Your task to perform on an android device: Open Chrome and go to settings Image 0: 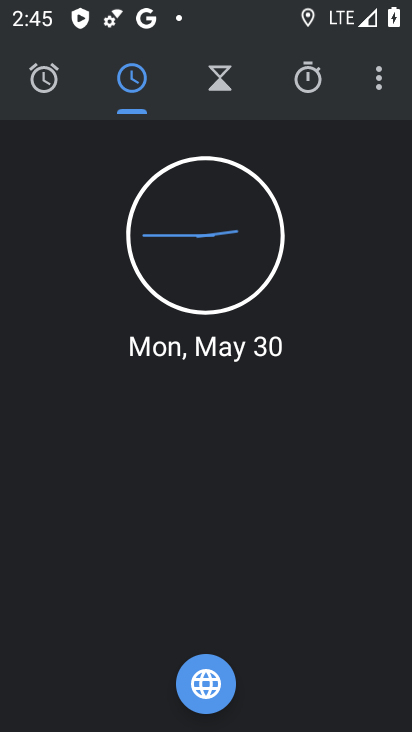
Step 0: press home button
Your task to perform on an android device: Open Chrome and go to settings Image 1: 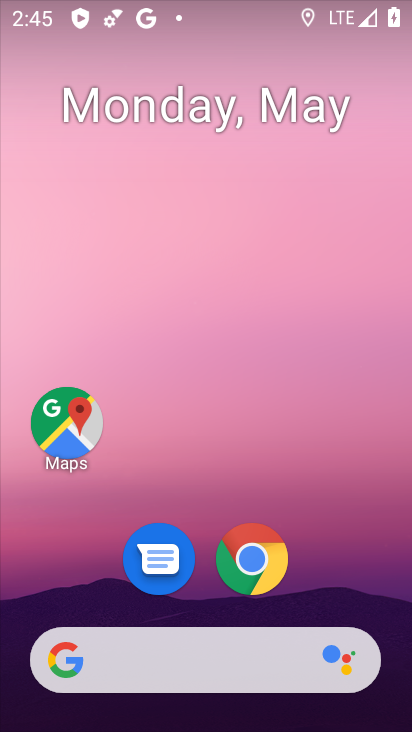
Step 1: click (256, 567)
Your task to perform on an android device: Open Chrome and go to settings Image 2: 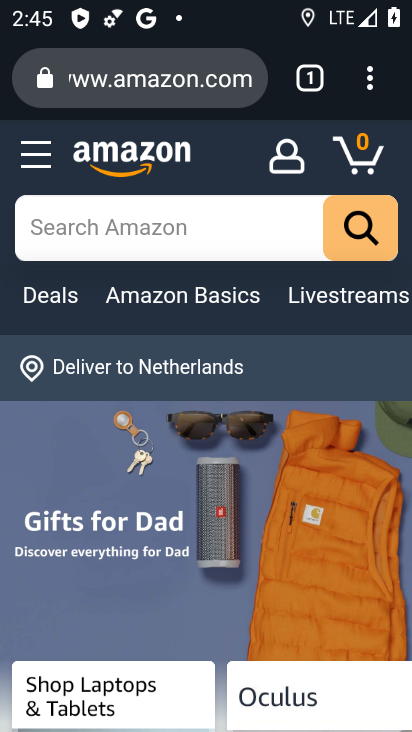
Step 2: click (374, 74)
Your task to perform on an android device: Open Chrome and go to settings Image 3: 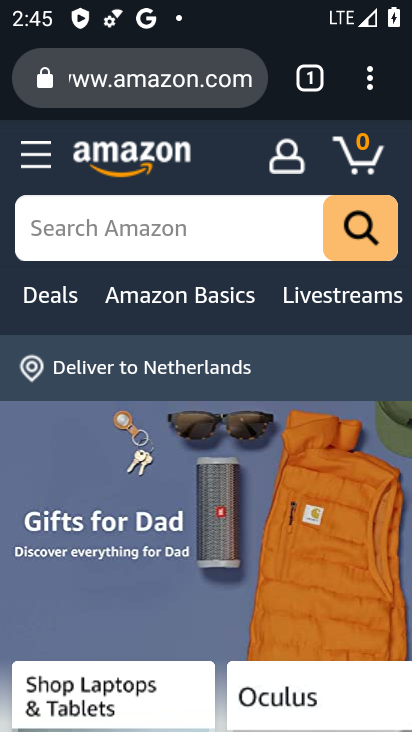
Step 3: click (371, 75)
Your task to perform on an android device: Open Chrome and go to settings Image 4: 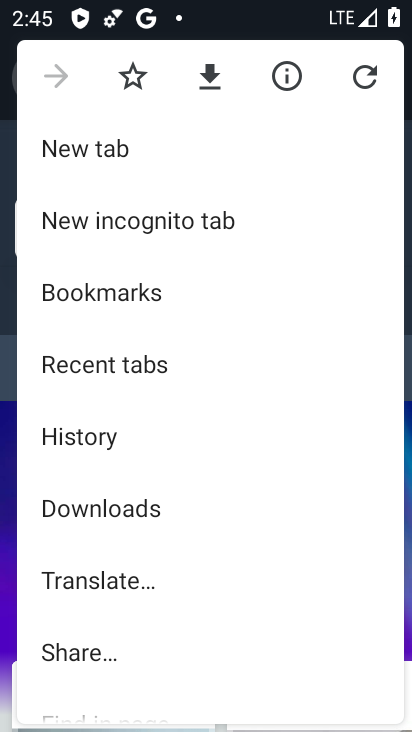
Step 4: drag from (146, 634) to (130, 325)
Your task to perform on an android device: Open Chrome and go to settings Image 5: 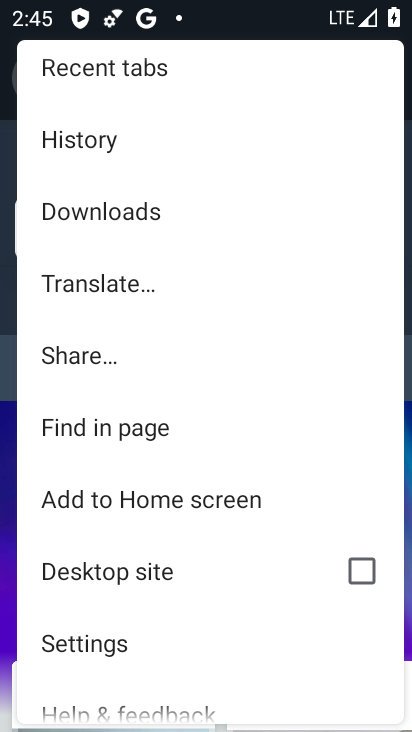
Step 5: click (129, 640)
Your task to perform on an android device: Open Chrome and go to settings Image 6: 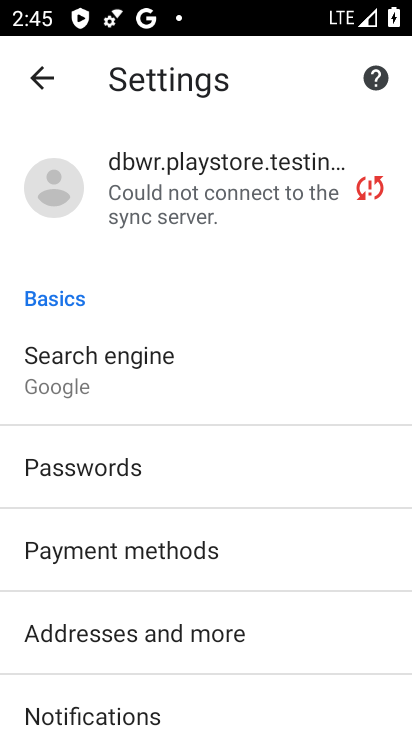
Step 6: task complete